Your task to perform on an android device: uninstall "Viber Messenger" Image 0: 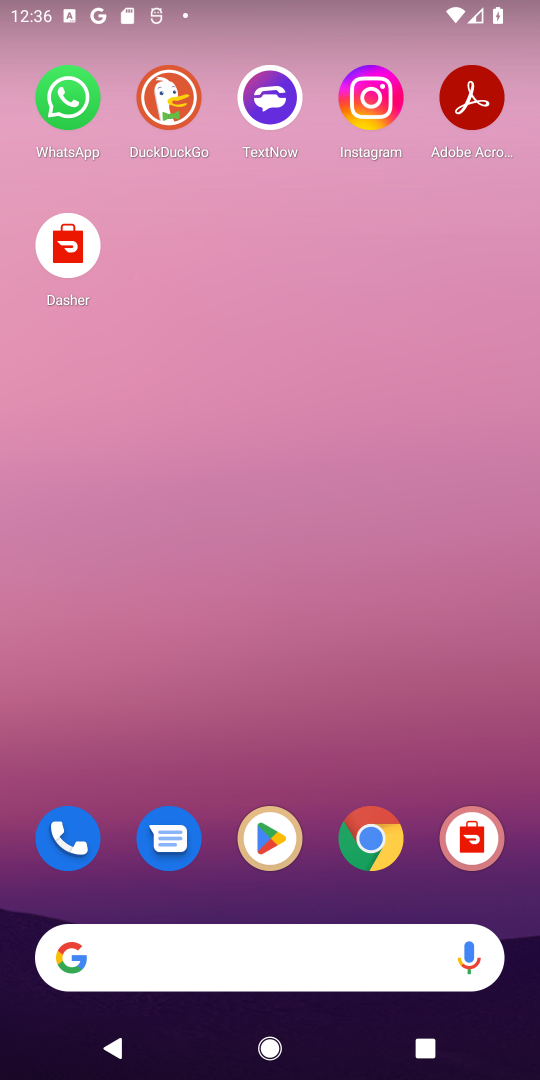
Step 0: click (254, 844)
Your task to perform on an android device: uninstall "Viber Messenger" Image 1: 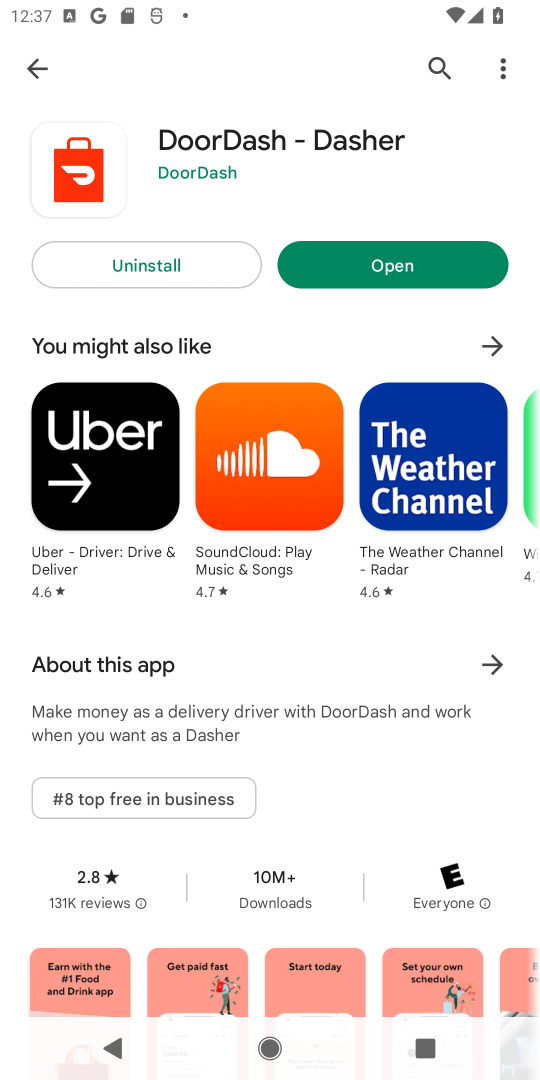
Step 1: click (431, 60)
Your task to perform on an android device: uninstall "Viber Messenger" Image 2: 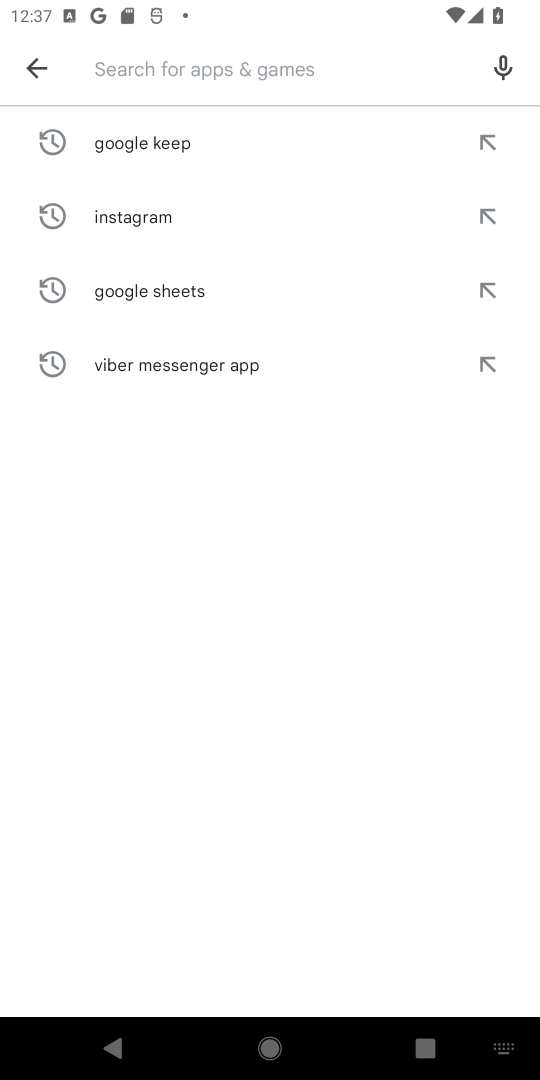
Step 2: type "Viber Messenger"
Your task to perform on an android device: uninstall "Viber Messenger" Image 3: 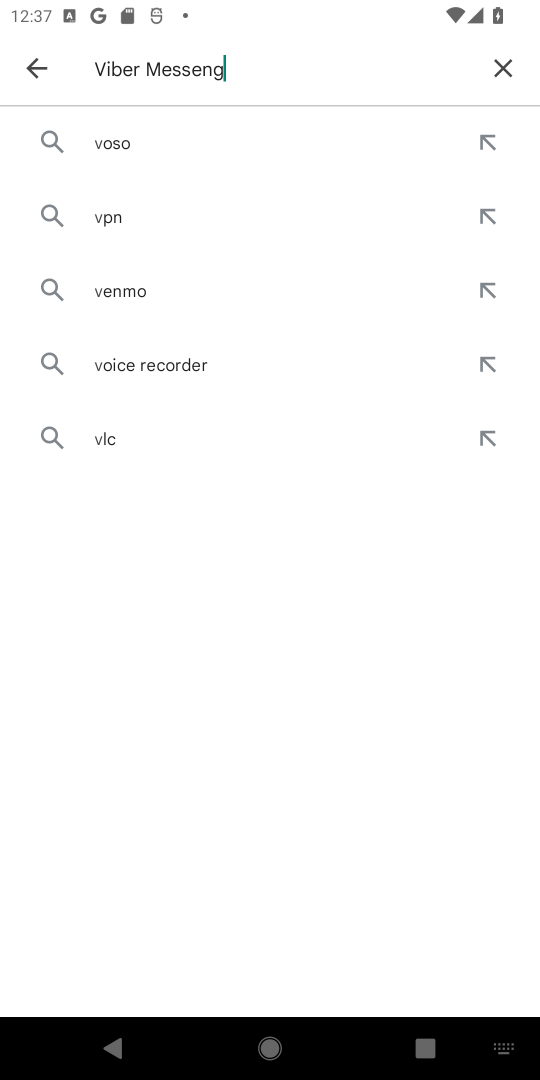
Step 3: type ""
Your task to perform on an android device: uninstall "Viber Messenger" Image 4: 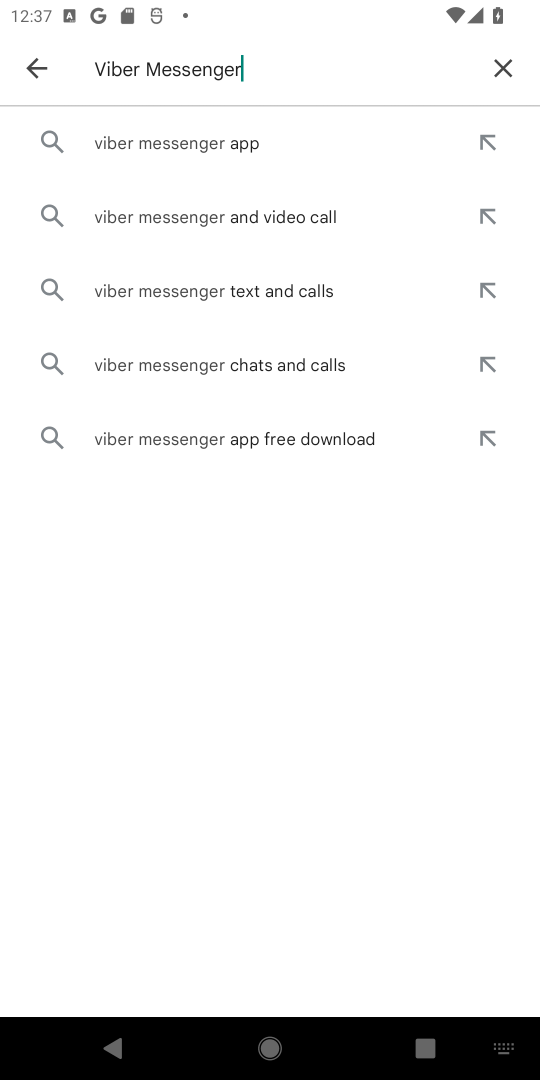
Step 4: click (175, 134)
Your task to perform on an android device: uninstall "Viber Messenger" Image 5: 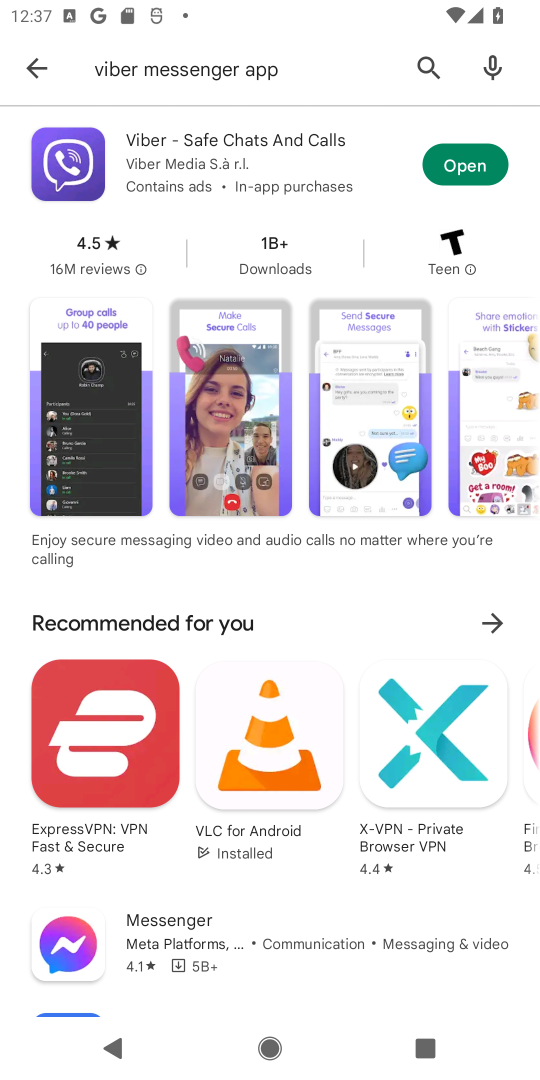
Step 5: click (316, 167)
Your task to perform on an android device: uninstall "Viber Messenger" Image 6: 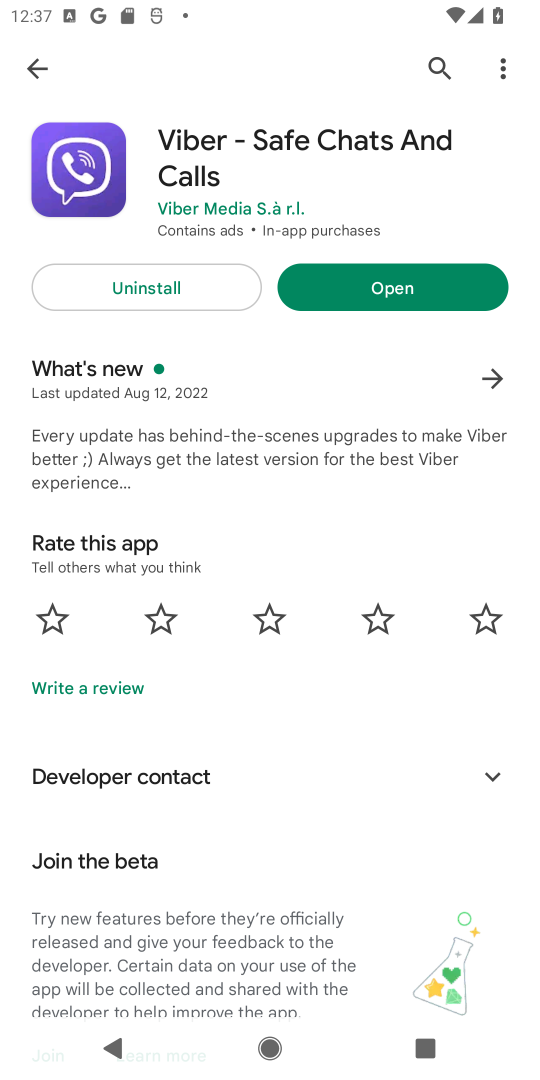
Step 6: click (197, 275)
Your task to perform on an android device: uninstall "Viber Messenger" Image 7: 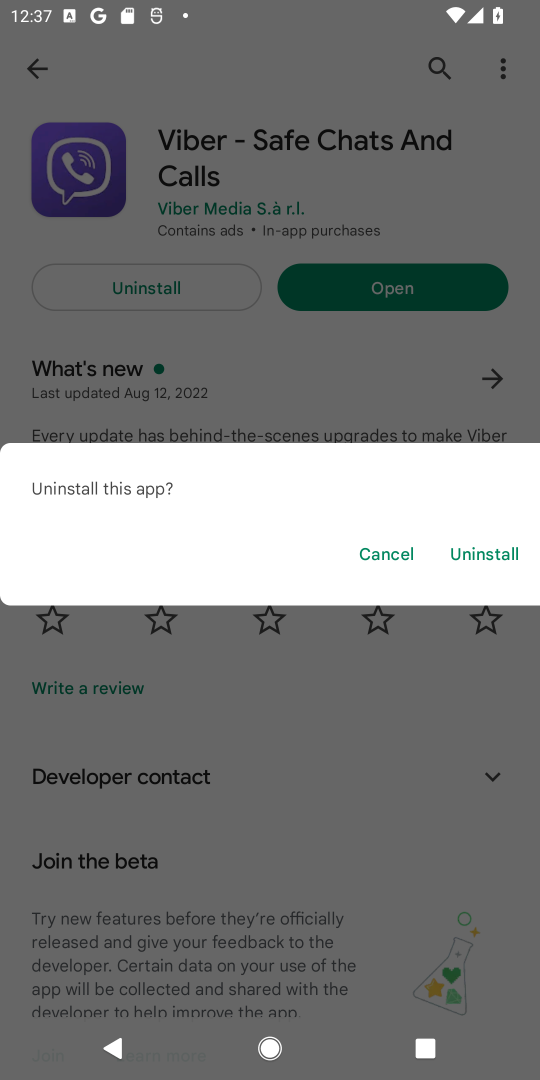
Step 7: click (463, 557)
Your task to perform on an android device: uninstall "Viber Messenger" Image 8: 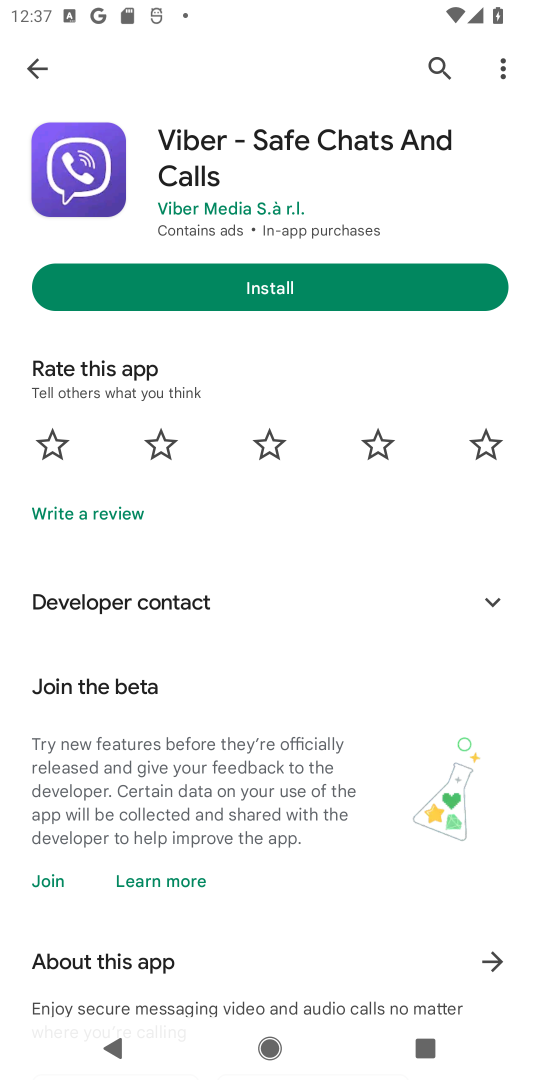
Step 8: task complete